Your task to perform on an android device: turn on bluetooth scan Image 0: 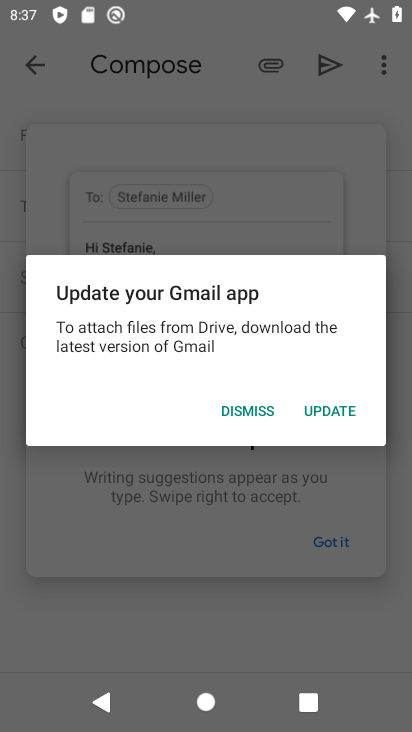
Step 0: press home button
Your task to perform on an android device: turn on bluetooth scan Image 1: 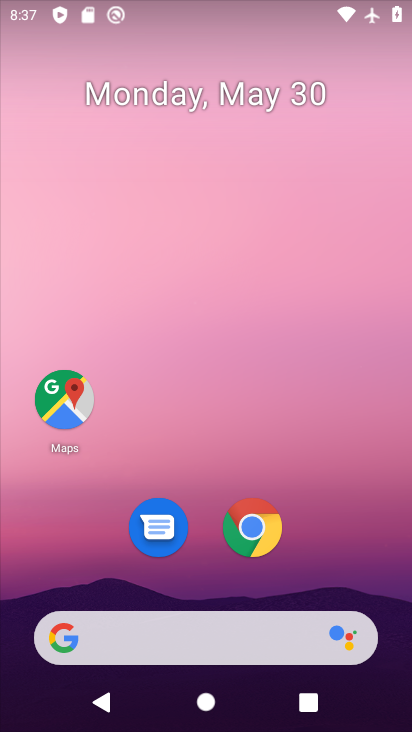
Step 1: drag from (201, 584) to (203, 10)
Your task to perform on an android device: turn on bluetooth scan Image 2: 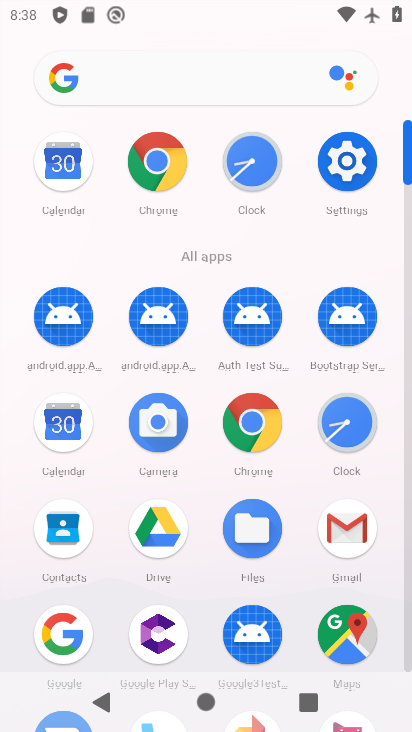
Step 2: click (339, 161)
Your task to perform on an android device: turn on bluetooth scan Image 3: 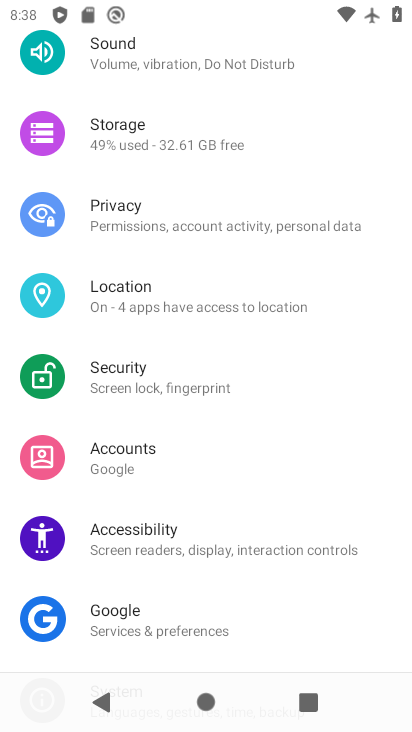
Step 3: click (148, 308)
Your task to perform on an android device: turn on bluetooth scan Image 4: 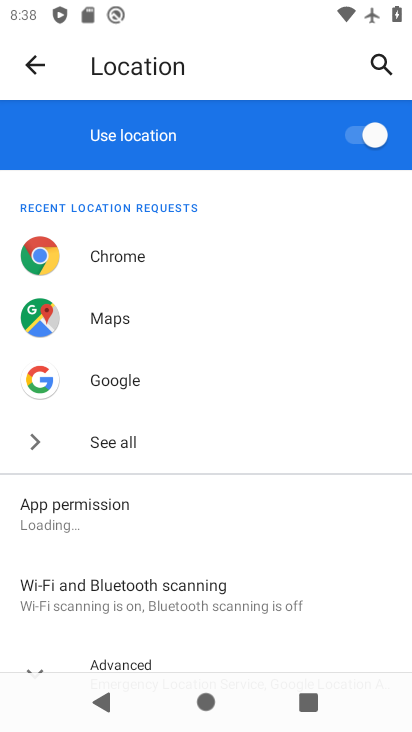
Step 4: click (124, 609)
Your task to perform on an android device: turn on bluetooth scan Image 5: 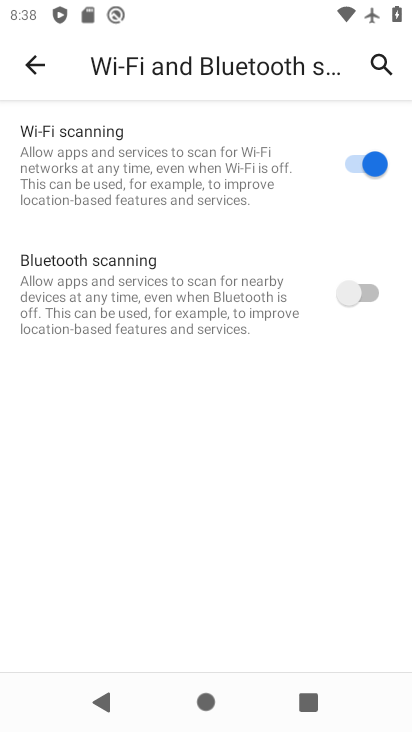
Step 5: click (351, 299)
Your task to perform on an android device: turn on bluetooth scan Image 6: 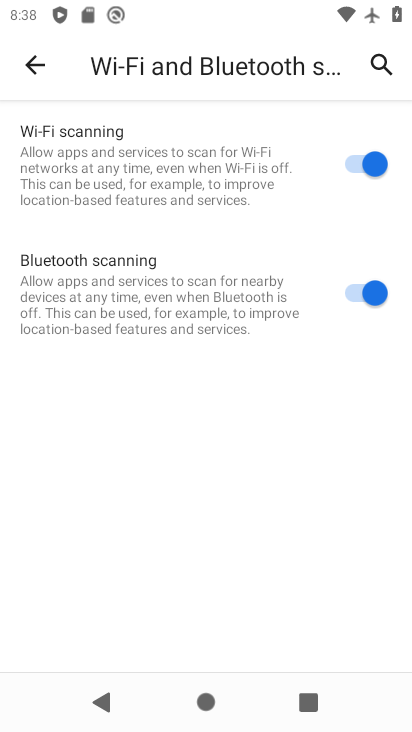
Step 6: task complete